Your task to perform on an android device: delete the emails in spam in the gmail app Image 0: 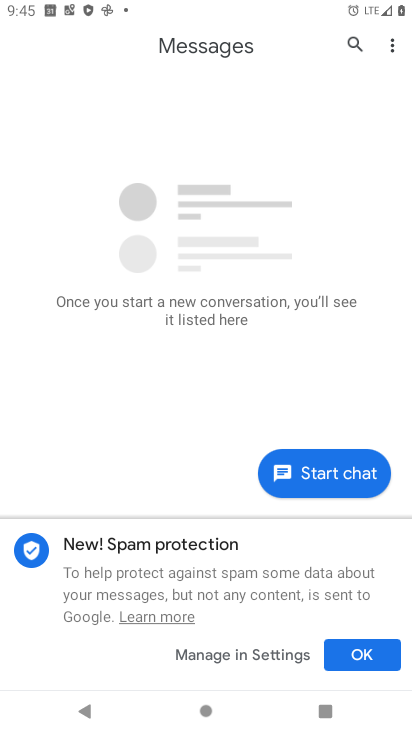
Step 0: press home button
Your task to perform on an android device: delete the emails in spam in the gmail app Image 1: 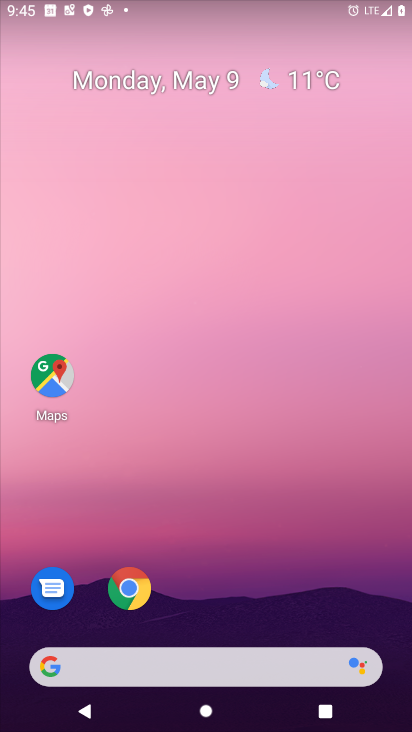
Step 1: drag from (323, 578) to (258, 80)
Your task to perform on an android device: delete the emails in spam in the gmail app Image 2: 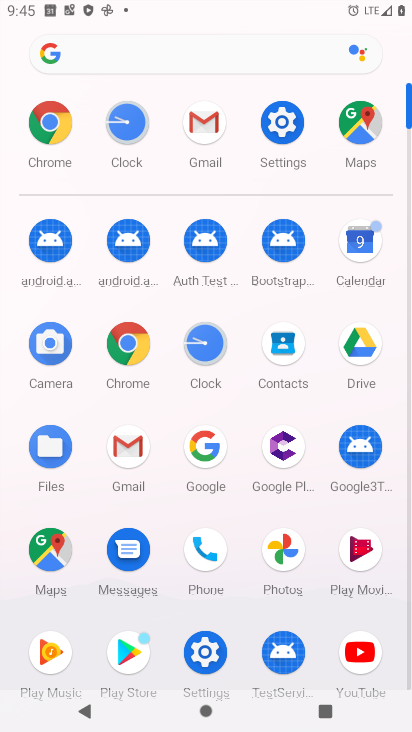
Step 2: click (141, 452)
Your task to perform on an android device: delete the emails in spam in the gmail app Image 3: 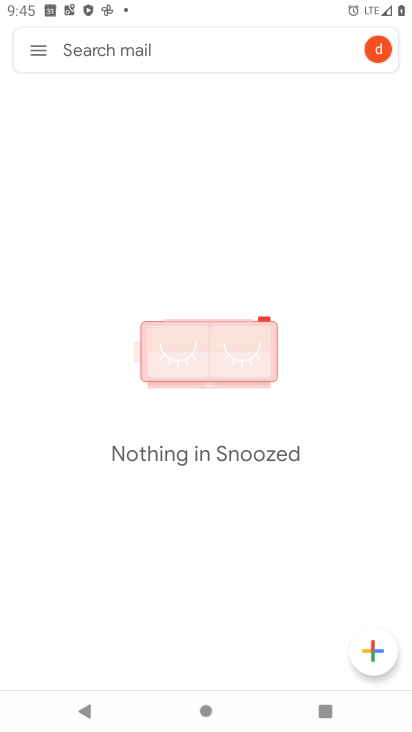
Step 3: click (34, 37)
Your task to perform on an android device: delete the emails in spam in the gmail app Image 4: 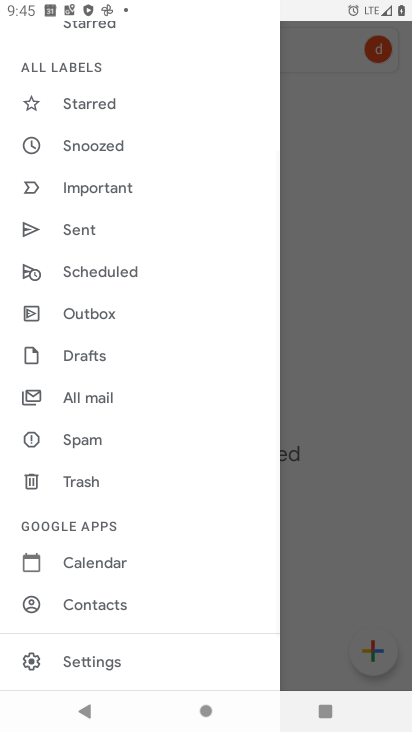
Step 4: click (128, 441)
Your task to perform on an android device: delete the emails in spam in the gmail app Image 5: 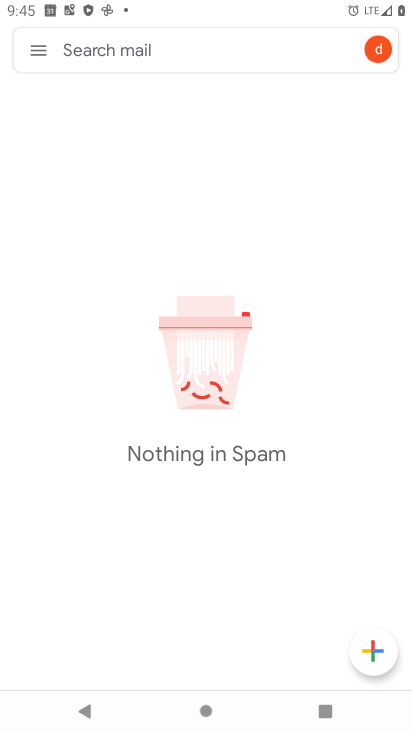
Step 5: task complete